Your task to perform on an android device: Open settings Image 0: 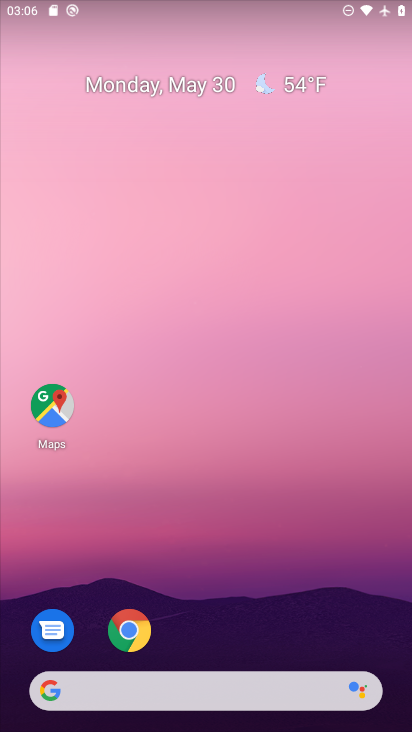
Step 0: press home button
Your task to perform on an android device: Open settings Image 1: 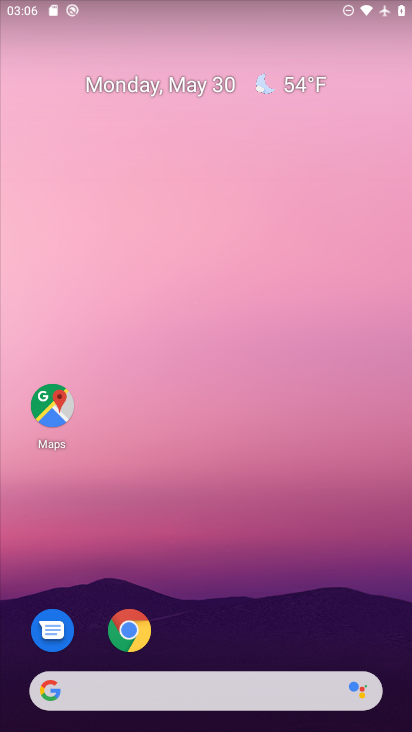
Step 1: drag from (144, 691) to (285, 347)
Your task to perform on an android device: Open settings Image 2: 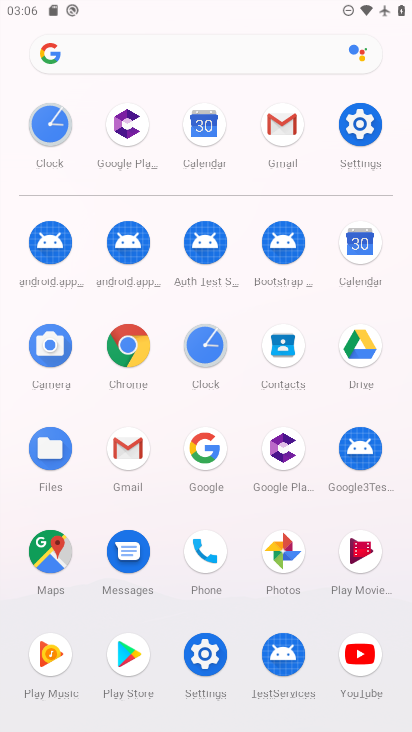
Step 2: click (364, 126)
Your task to perform on an android device: Open settings Image 3: 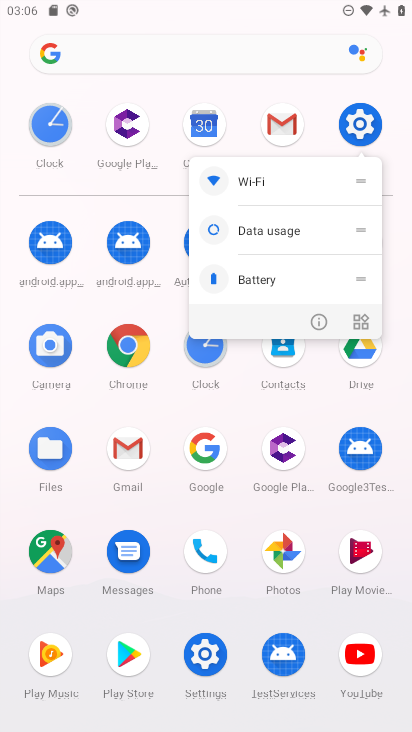
Step 3: click (358, 120)
Your task to perform on an android device: Open settings Image 4: 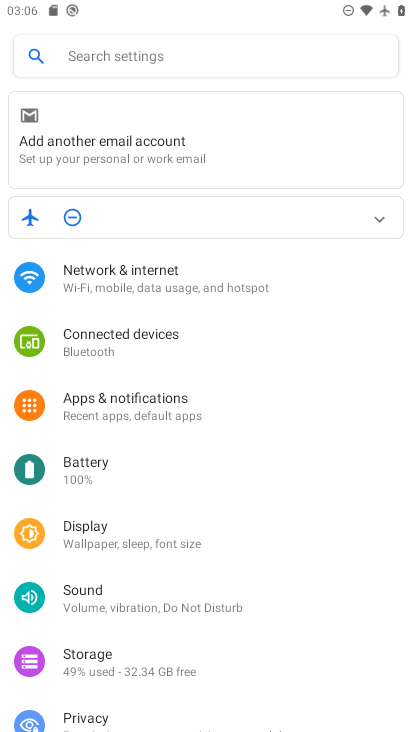
Step 4: task complete